Your task to perform on an android device: Go to Amazon Image 0: 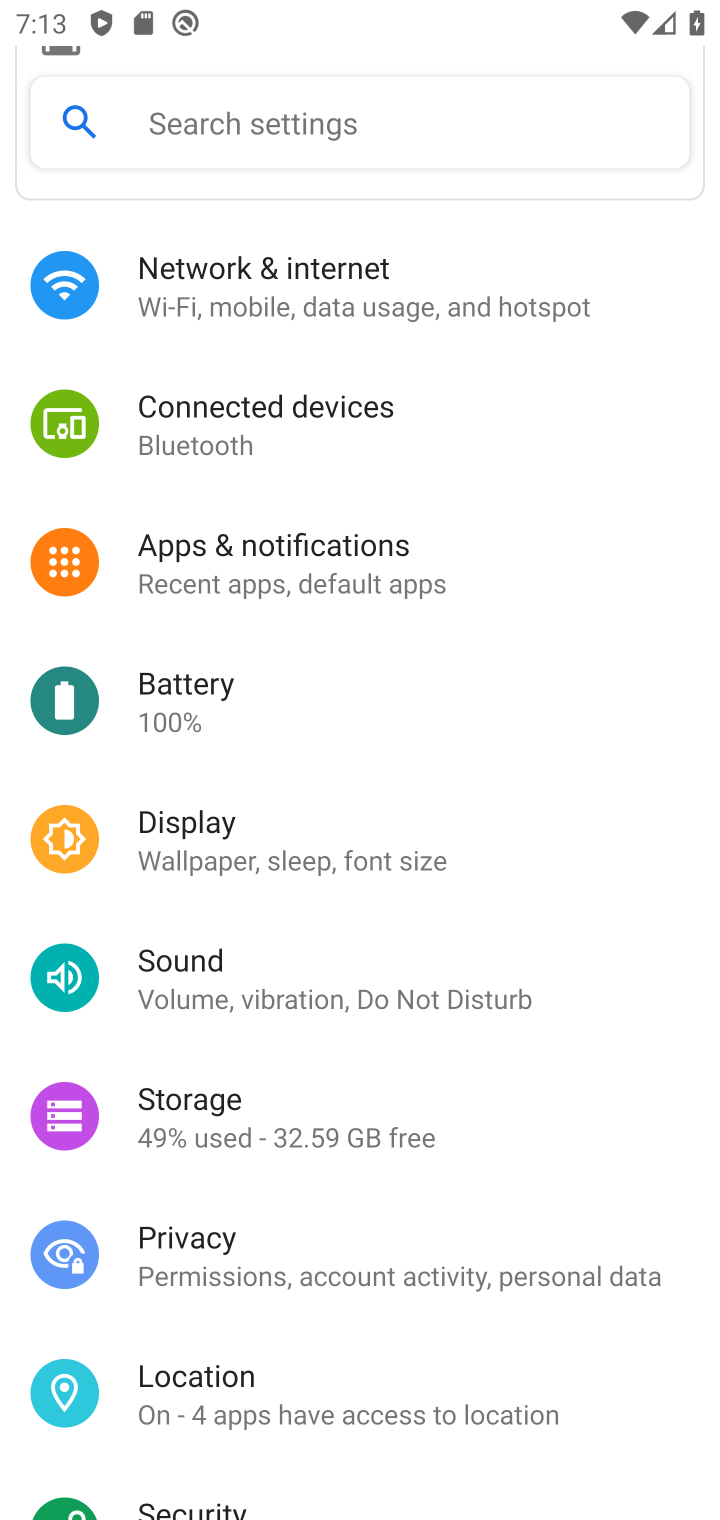
Step 0: press home button
Your task to perform on an android device: Go to Amazon Image 1: 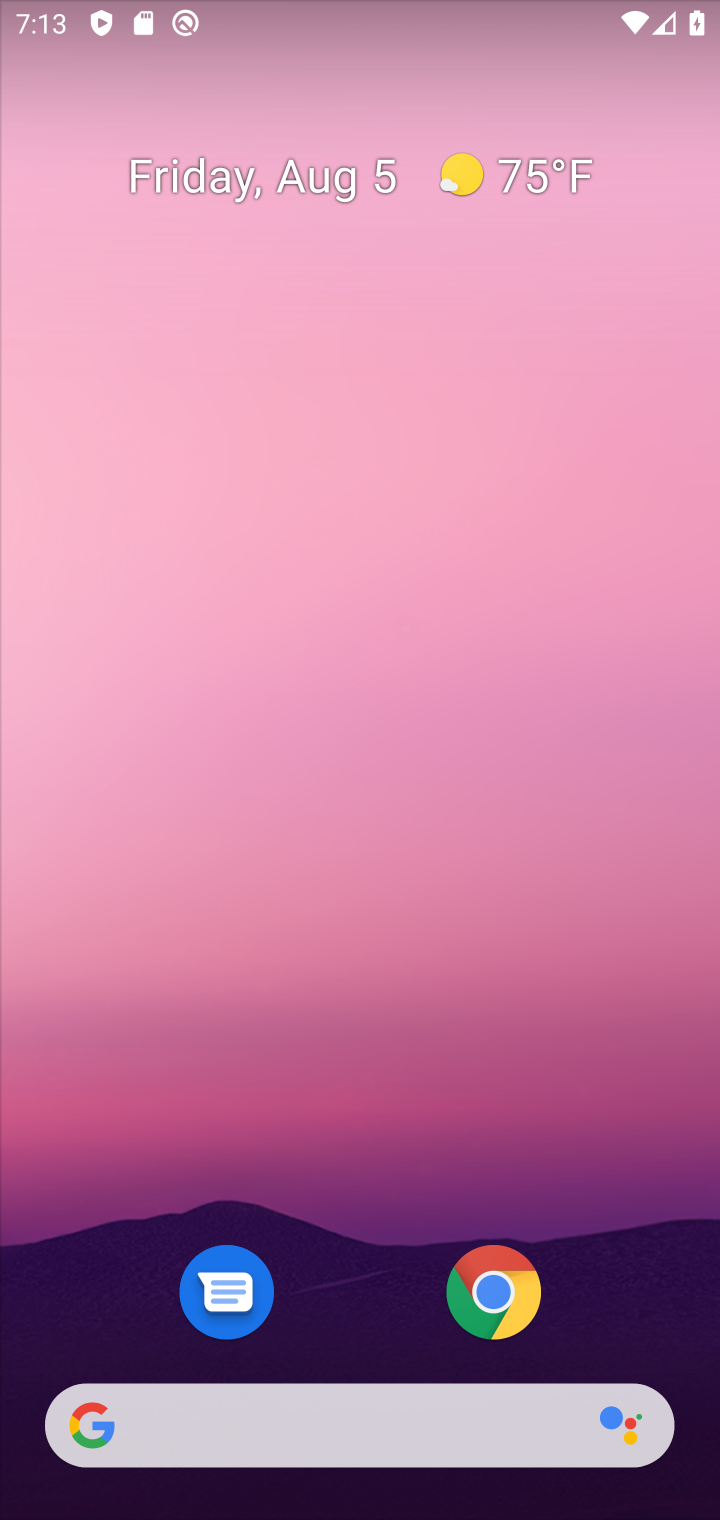
Step 1: click (502, 1290)
Your task to perform on an android device: Go to Amazon Image 2: 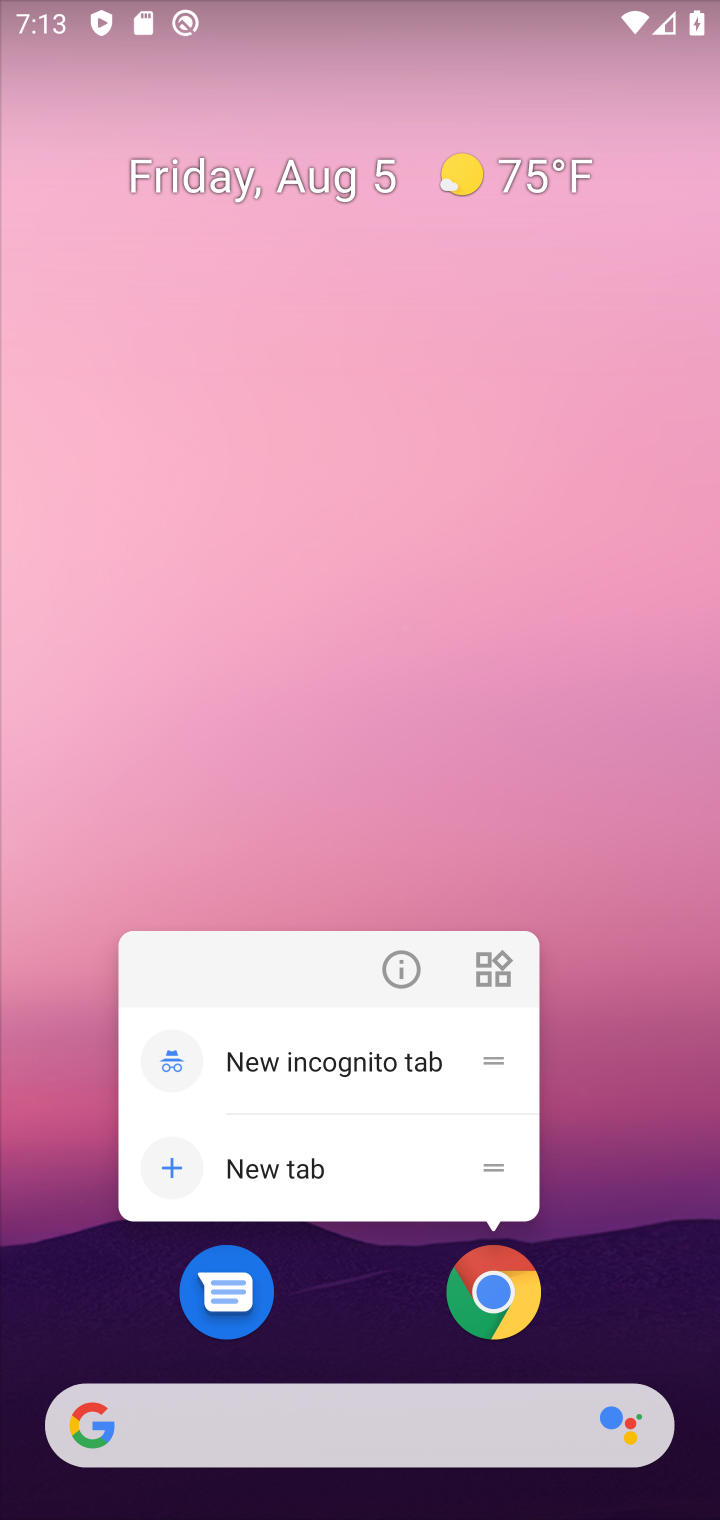
Step 2: click (502, 1290)
Your task to perform on an android device: Go to Amazon Image 3: 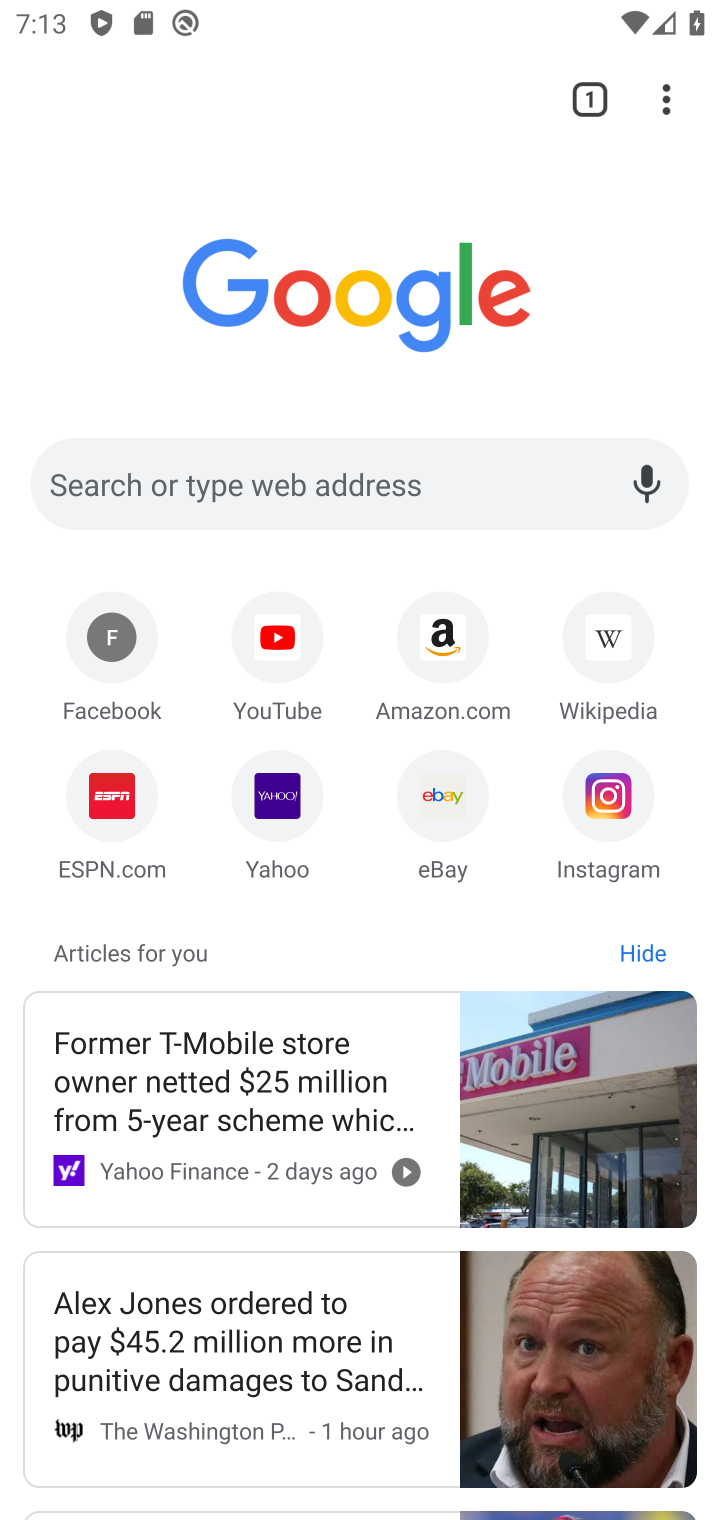
Step 3: click (450, 627)
Your task to perform on an android device: Go to Amazon Image 4: 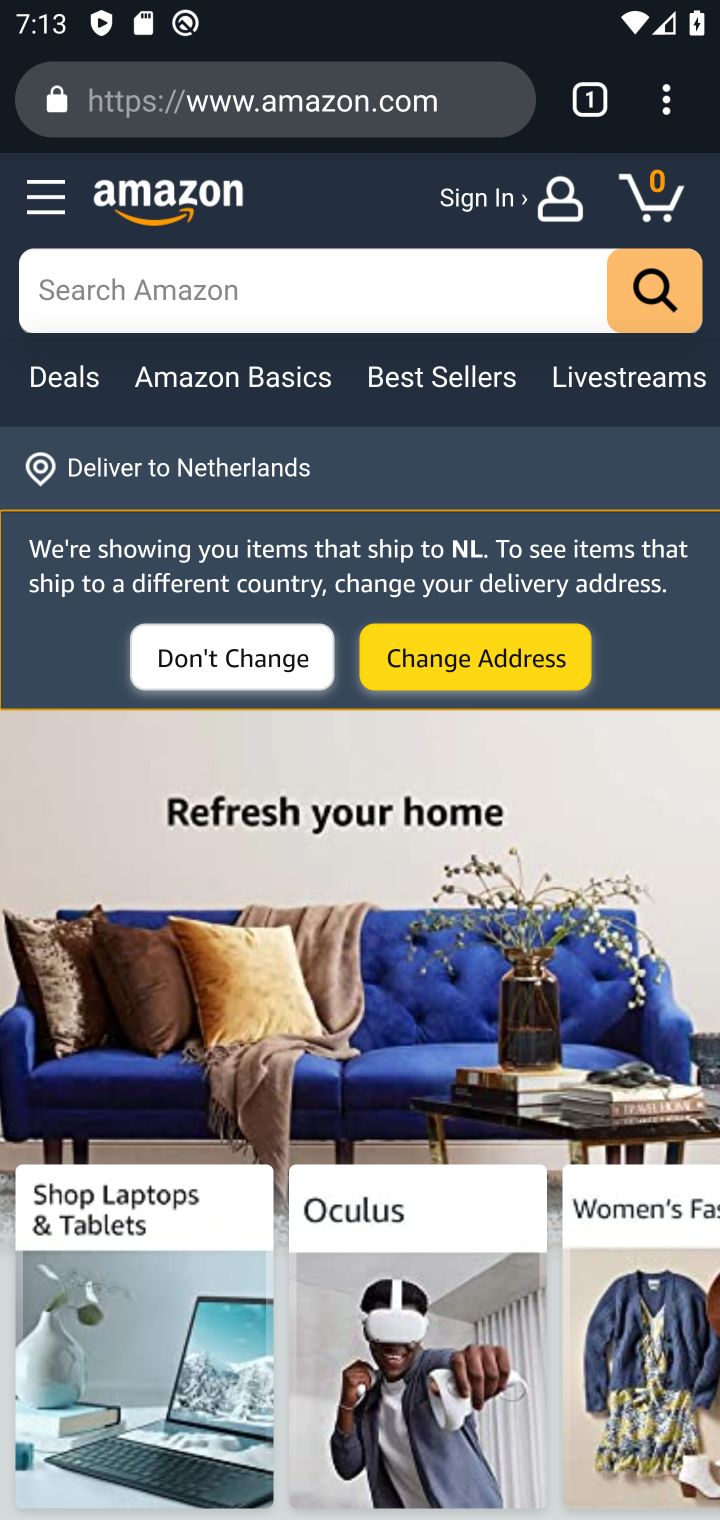
Step 4: task complete